Your task to perform on an android device: change the clock style Image 0: 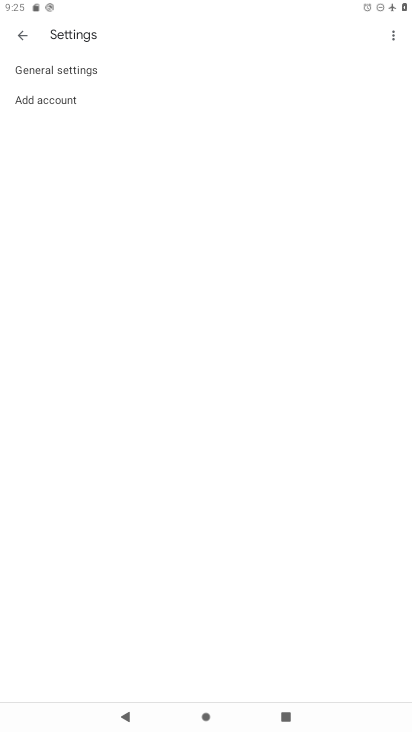
Step 0: press home button
Your task to perform on an android device: change the clock style Image 1: 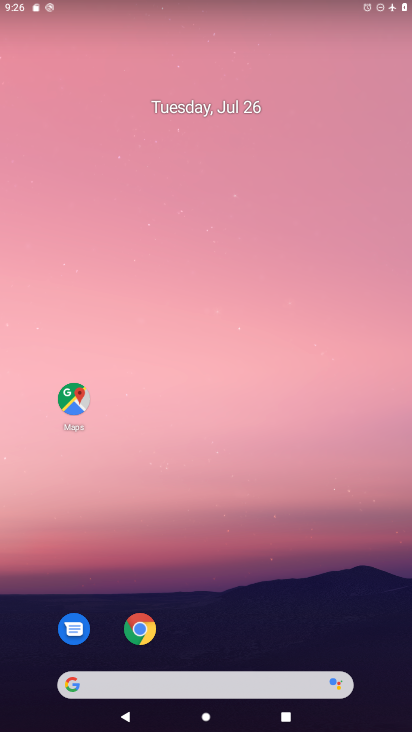
Step 1: drag from (190, 677) to (89, 66)
Your task to perform on an android device: change the clock style Image 2: 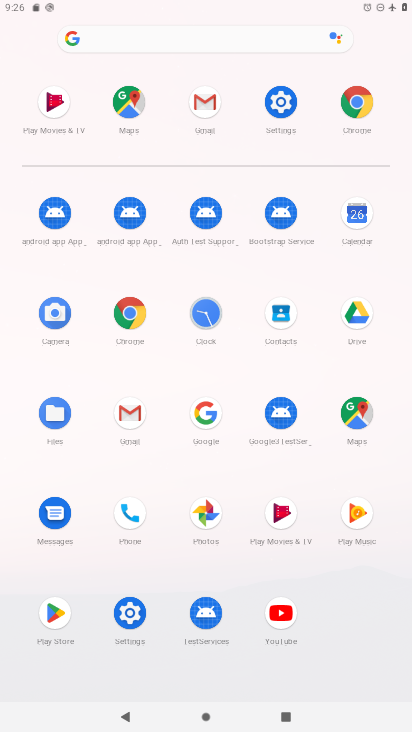
Step 2: click (207, 314)
Your task to perform on an android device: change the clock style Image 3: 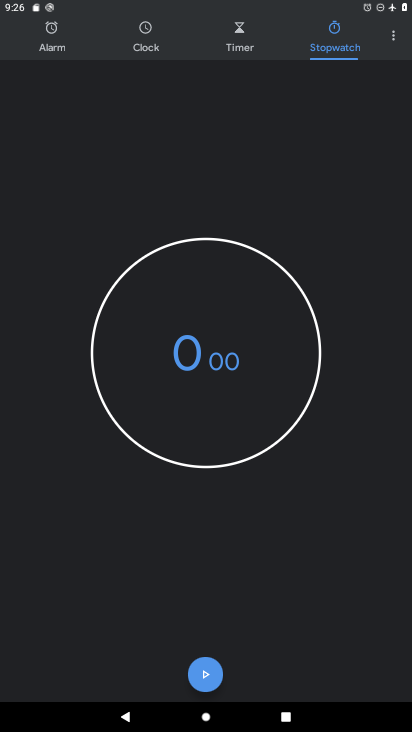
Step 3: drag from (394, 36) to (313, 68)
Your task to perform on an android device: change the clock style Image 4: 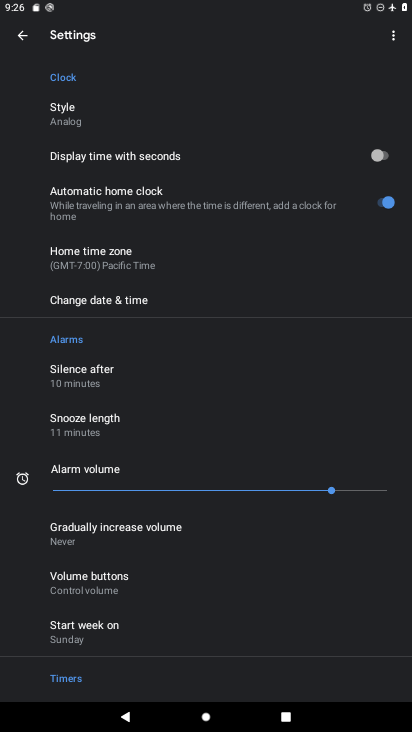
Step 4: click (85, 100)
Your task to perform on an android device: change the clock style Image 5: 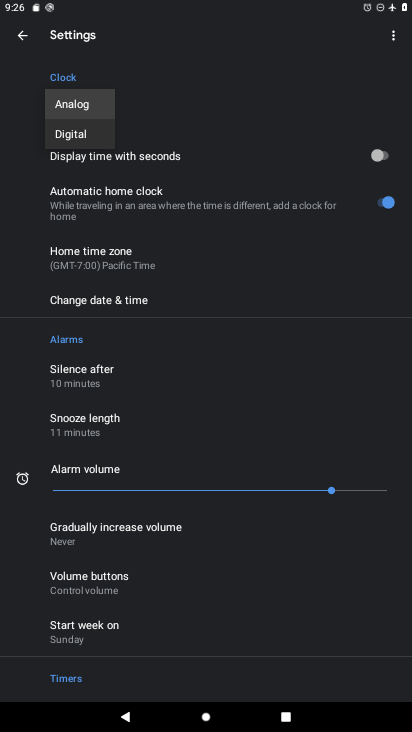
Step 5: click (79, 133)
Your task to perform on an android device: change the clock style Image 6: 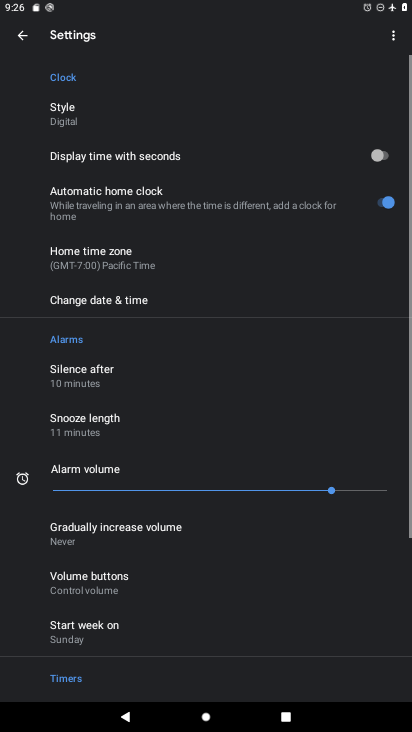
Step 6: task complete